Your task to perform on an android device: turn on sleep mode Image 0: 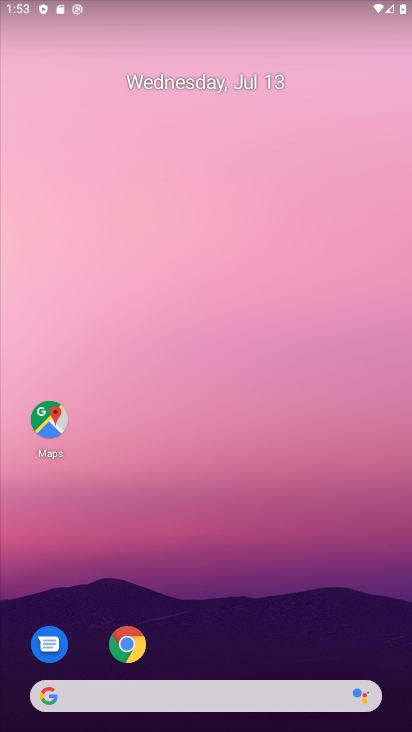
Step 0: drag from (213, 664) to (274, 9)
Your task to perform on an android device: turn on sleep mode Image 1: 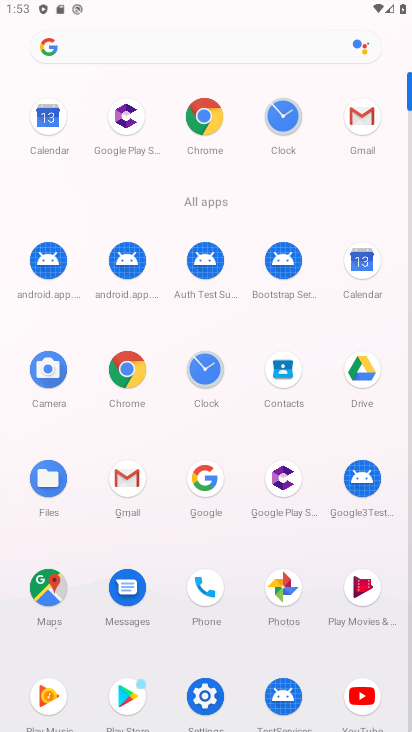
Step 1: click (193, 694)
Your task to perform on an android device: turn on sleep mode Image 2: 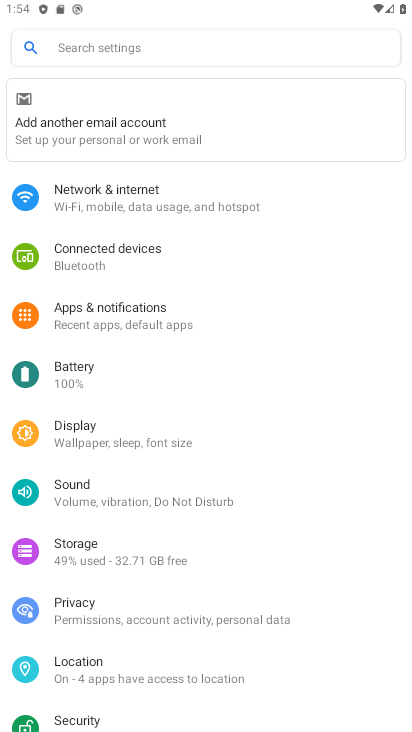
Step 2: click (151, 44)
Your task to perform on an android device: turn on sleep mode Image 3: 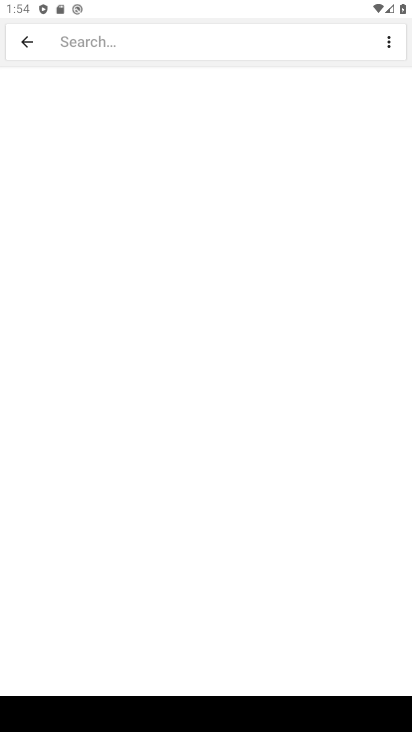
Step 3: type "sleep mode"
Your task to perform on an android device: turn on sleep mode Image 4: 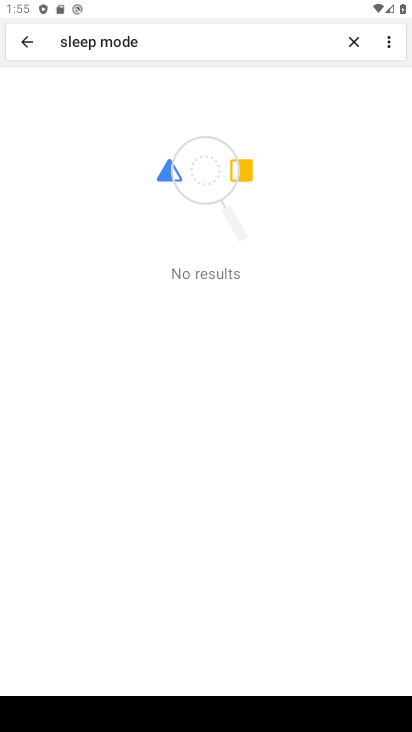
Step 4: task complete